Your task to perform on an android device: turn on translation in the chrome app Image 0: 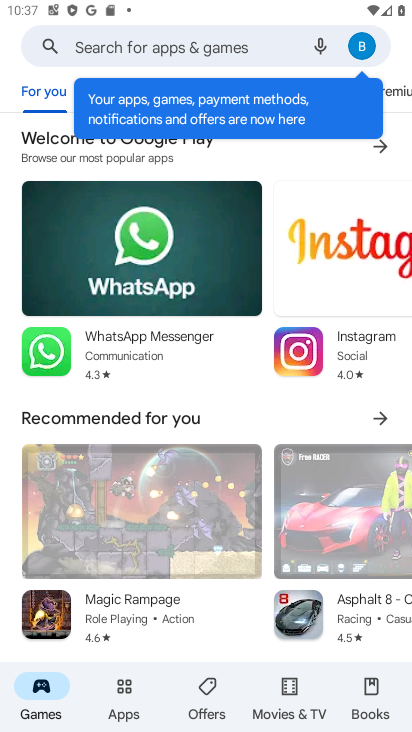
Step 0: click (247, 49)
Your task to perform on an android device: turn on translation in the chrome app Image 1: 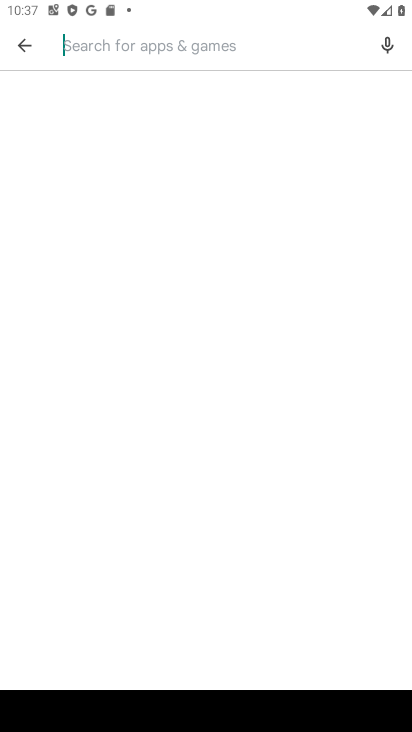
Step 1: click (22, 48)
Your task to perform on an android device: turn on translation in the chrome app Image 2: 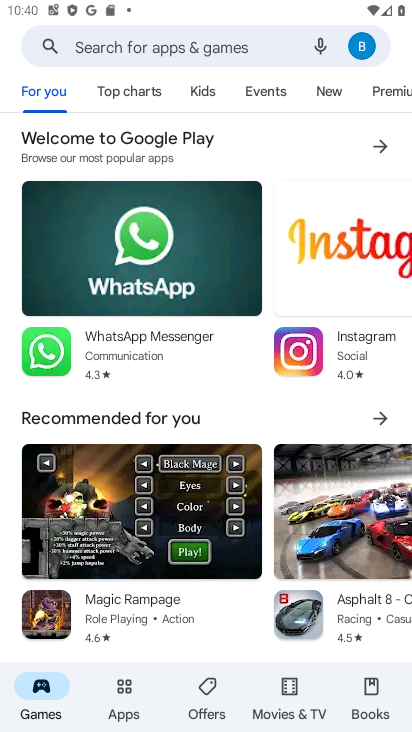
Step 2: press home button
Your task to perform on an android device: turn on translation in the chrome app Image 3: 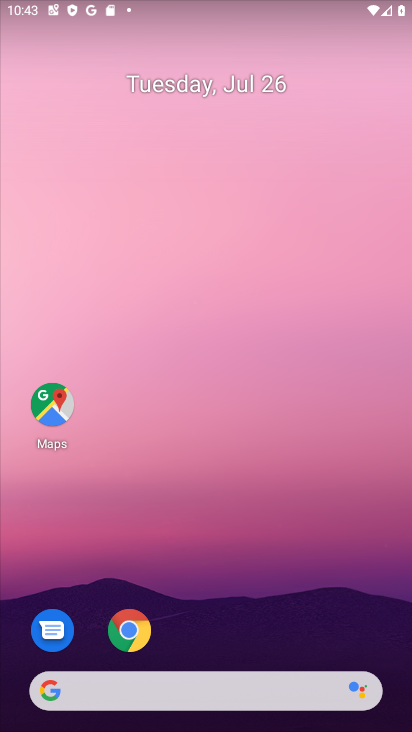
Step 3: click (113, 624)
Your task to perform on an android device: turn on translation in the chrome app Image 4: 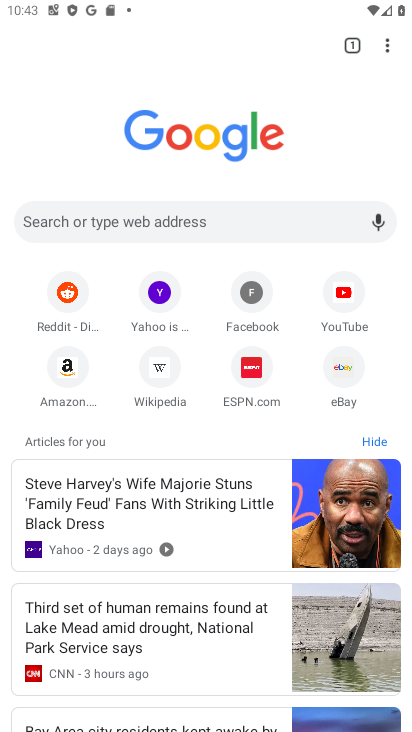
Step 4: click (381, 54)
Your task to perform on an android device: turn on translation in the chrome app Image 5: 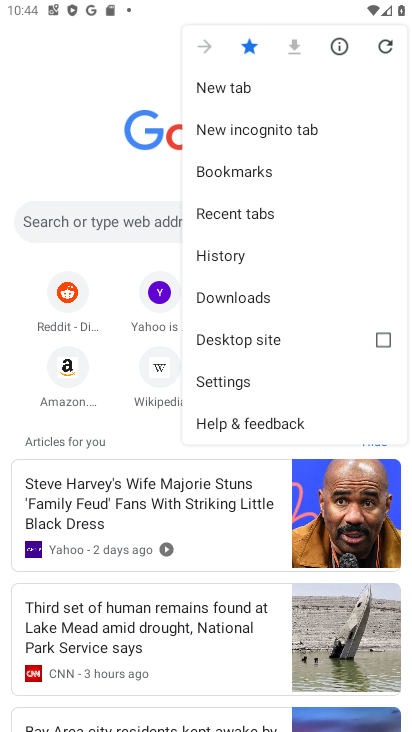
Step 5: click (288, 379)
Your task to perform on an android device: turn on translation in the chrome app Image 6: 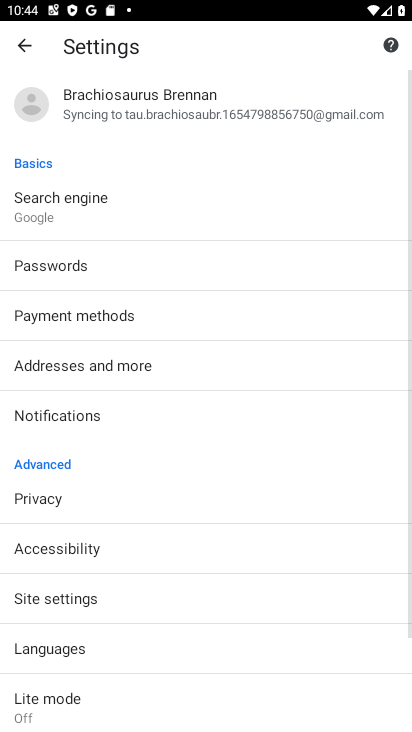
Step 6: click (127, 642)
Your task to perform on an android device: turn on translation in the chrome app Image 7: 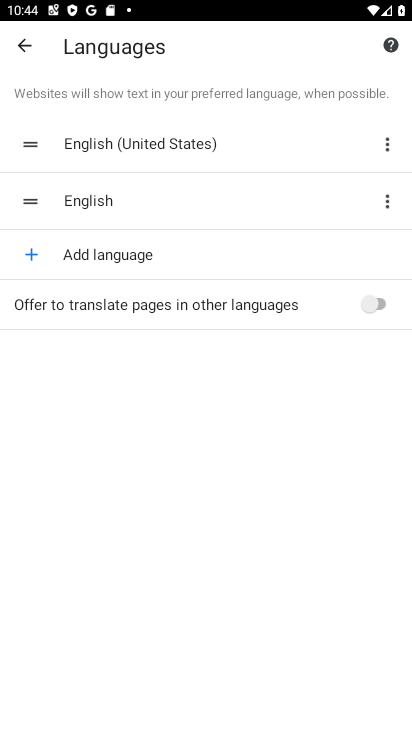
Step 7: click (390, 303)
Your task to perform on an android device: turn on translation in the chrome app Image 8: 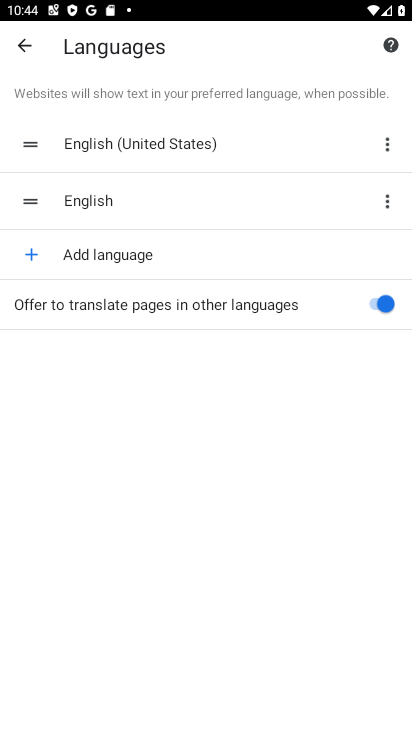
Step 8: task complete